Your task to perform on an android device: Go to Amazon Image 0: 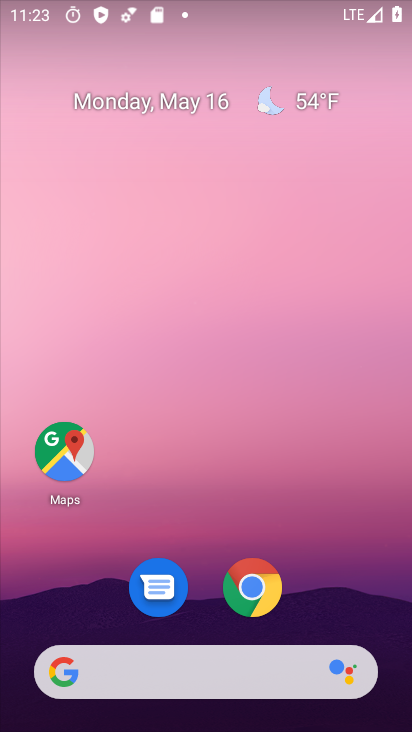
Step 0: drag from (218, 574) to (233, 176)
Your task to perform on an android device: Go to Amazon Image 1: 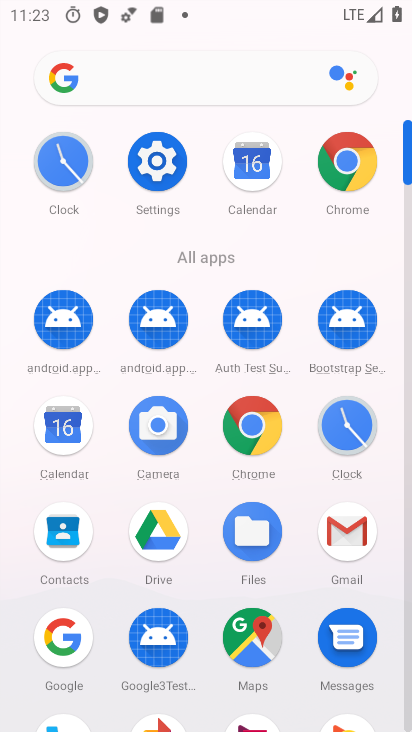
Step 1: click (345, 162)
Your task to perform on an android device: Go to Amazon Image 2: 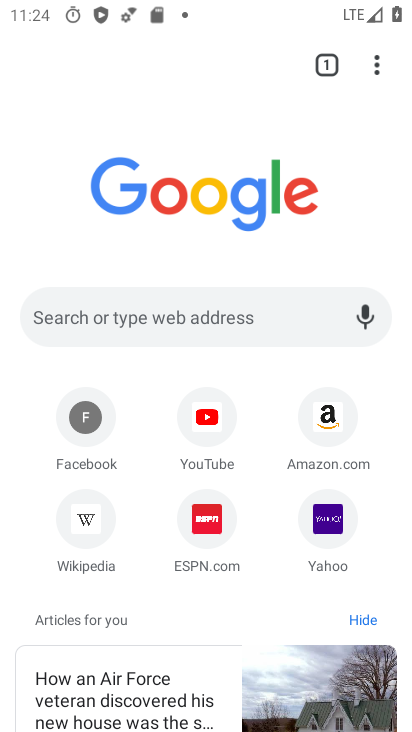
Step 2: click (329, 412)
Your task to perform on an android device: Go to Amazon Image 3: 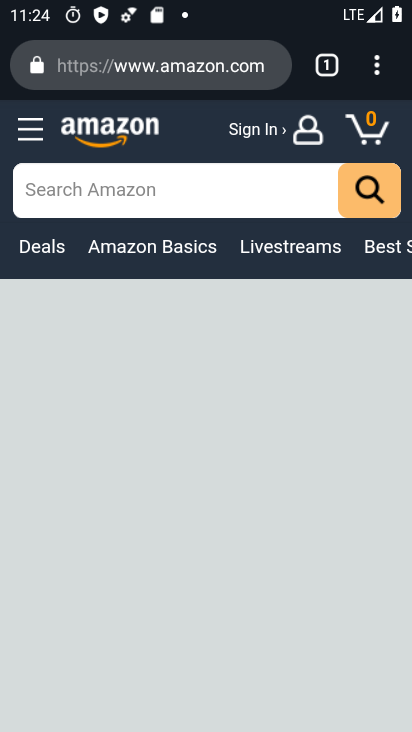
Step 3: task complete